Your task to perform on an android device: add a contact in the contacts app Image 0: 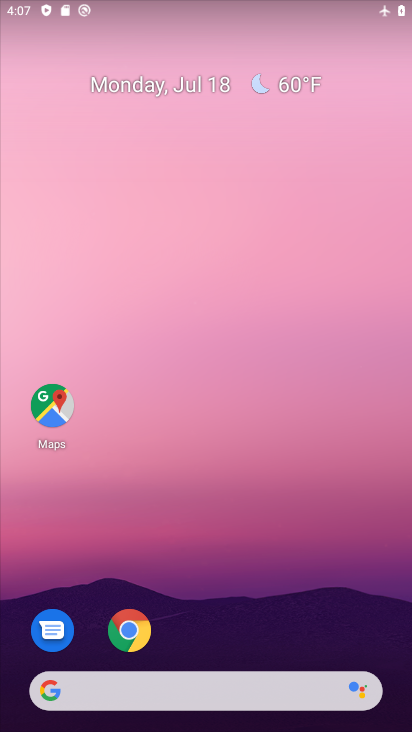
Step 0: drag from (179, 642) to (170, 228)
Your task to perform on an android device: add a contact in the contacts app Image 1: 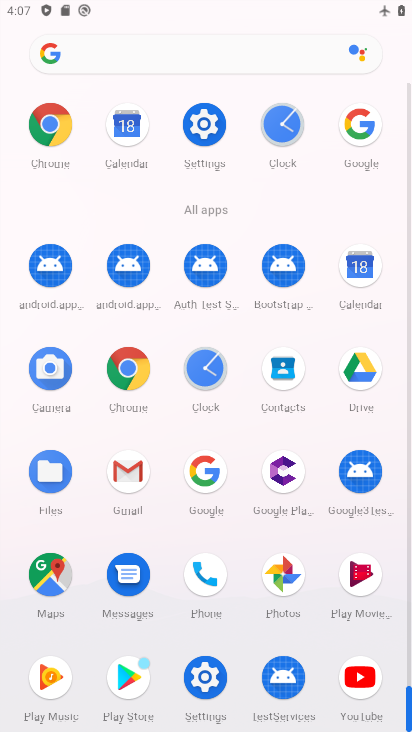
Step 1: click (285, 381)
Your task to perform on an android device: add a contact in the contacts app Image 2: 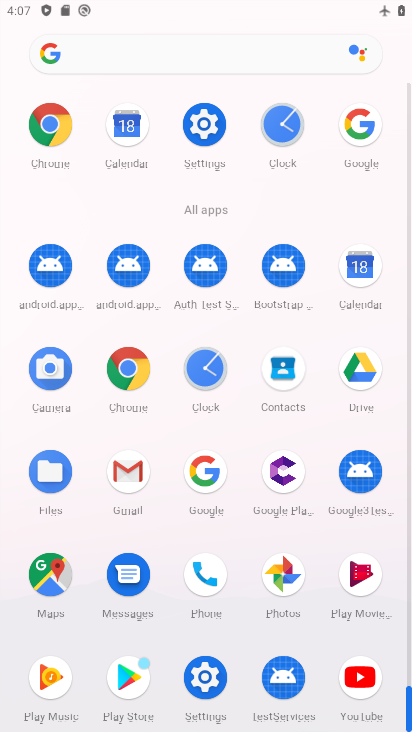
Step 2: click (285, 381)
Your task to perform on an android device: add a contact in the contacts app Image 3: 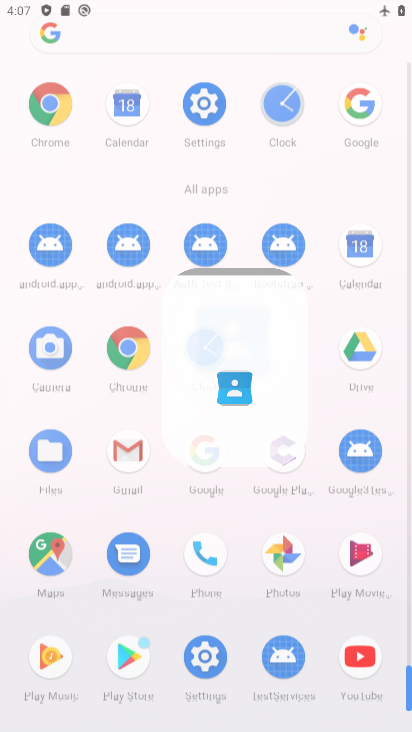
Step 3: click (281, 384)
Your task to perform on an android device: add a contact in the contacts app Image 4: 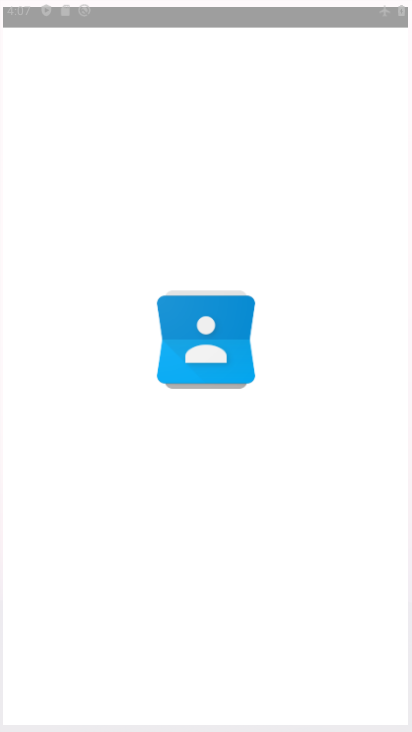
Step 4: click (281, 384)
Your task to perform on an android device: add a contact in the contacts app Image 5: 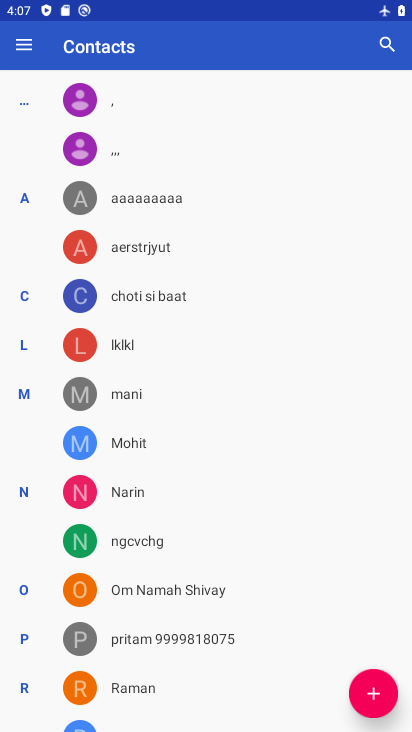
Step 5: click (370, 696)
Your task to perform on an android device: add a contact in the contacts app Image 6: 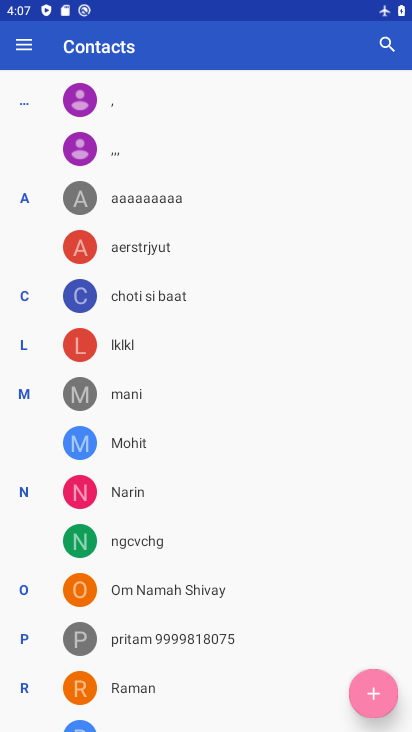
Step 6: click (376, 698)
Your task to perform on an android device: add a contact in the contacts app Image 7: 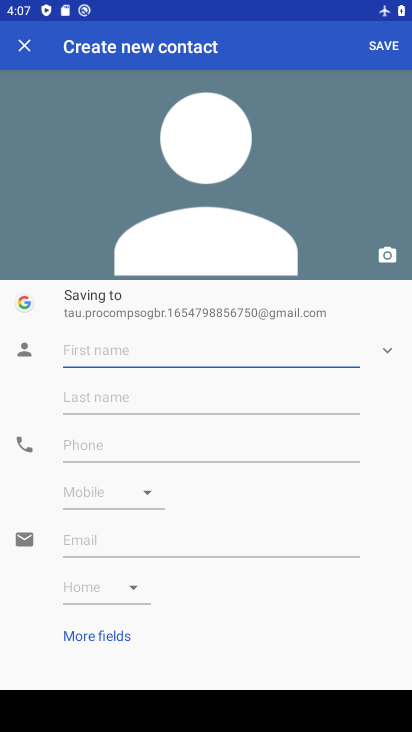
Step 7: type " bbgcbnbnc"
Your task to perform on an android device: add a contact in the contacts app Image 8: 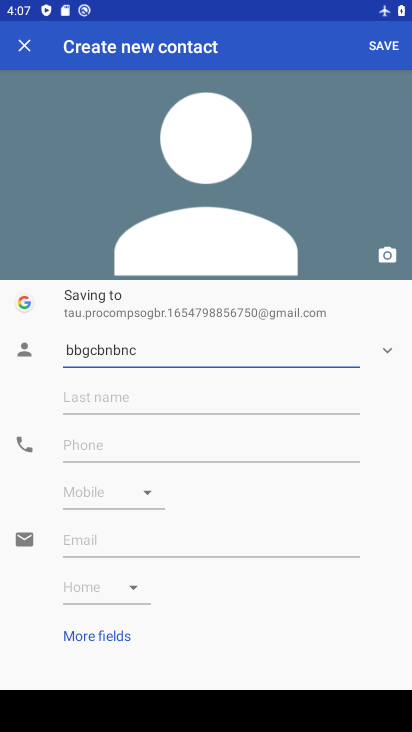
Step 8: click (66, 443)
Your task to perform on an android device: add a contact in the contacts app Image 9: 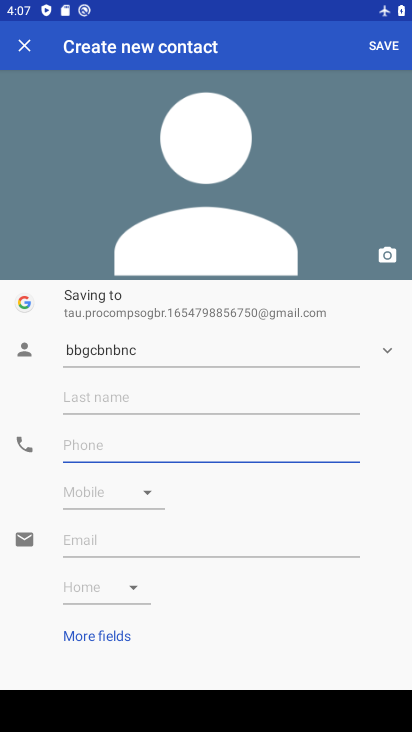
Step 9: type "6768788796787688"
Your task to perform on an android device: add a contact in the contacts app Image 10: 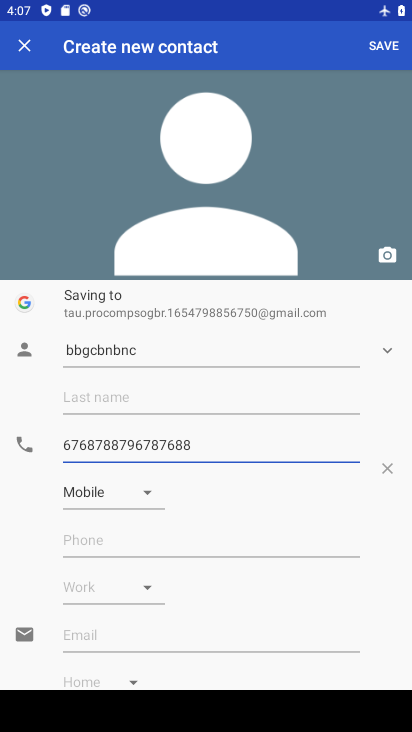
Step 10: click (392, 48)
Your task to perform on an android device: add a contact in the contacts app Image 11: 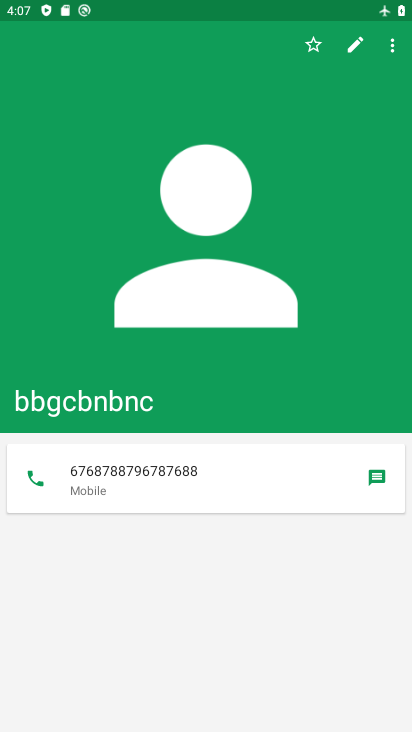
Step 11: task complete